Your task to perform on an android device: change notifications settings Image 0: 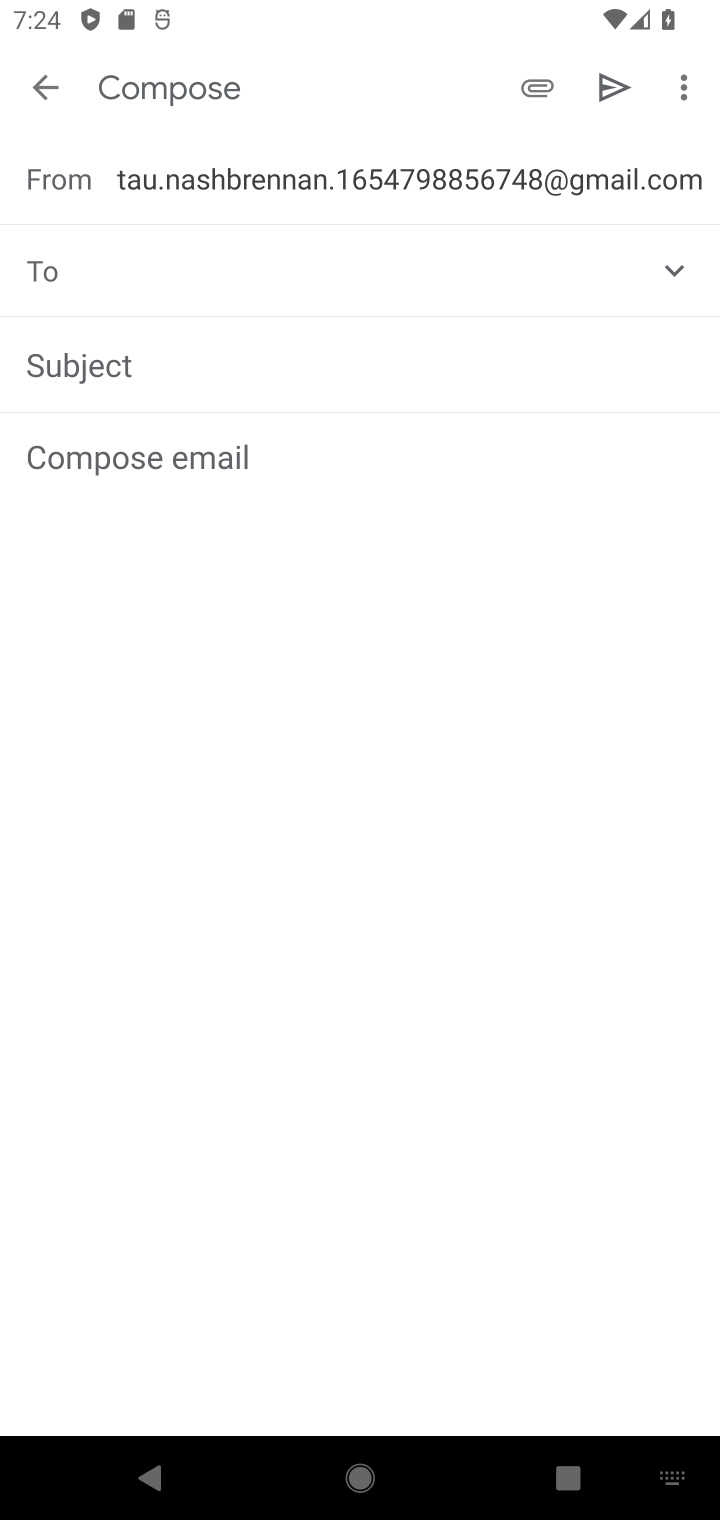
Step 0: press home button
Your task to perform on an android device: change notifications settings Image 1: 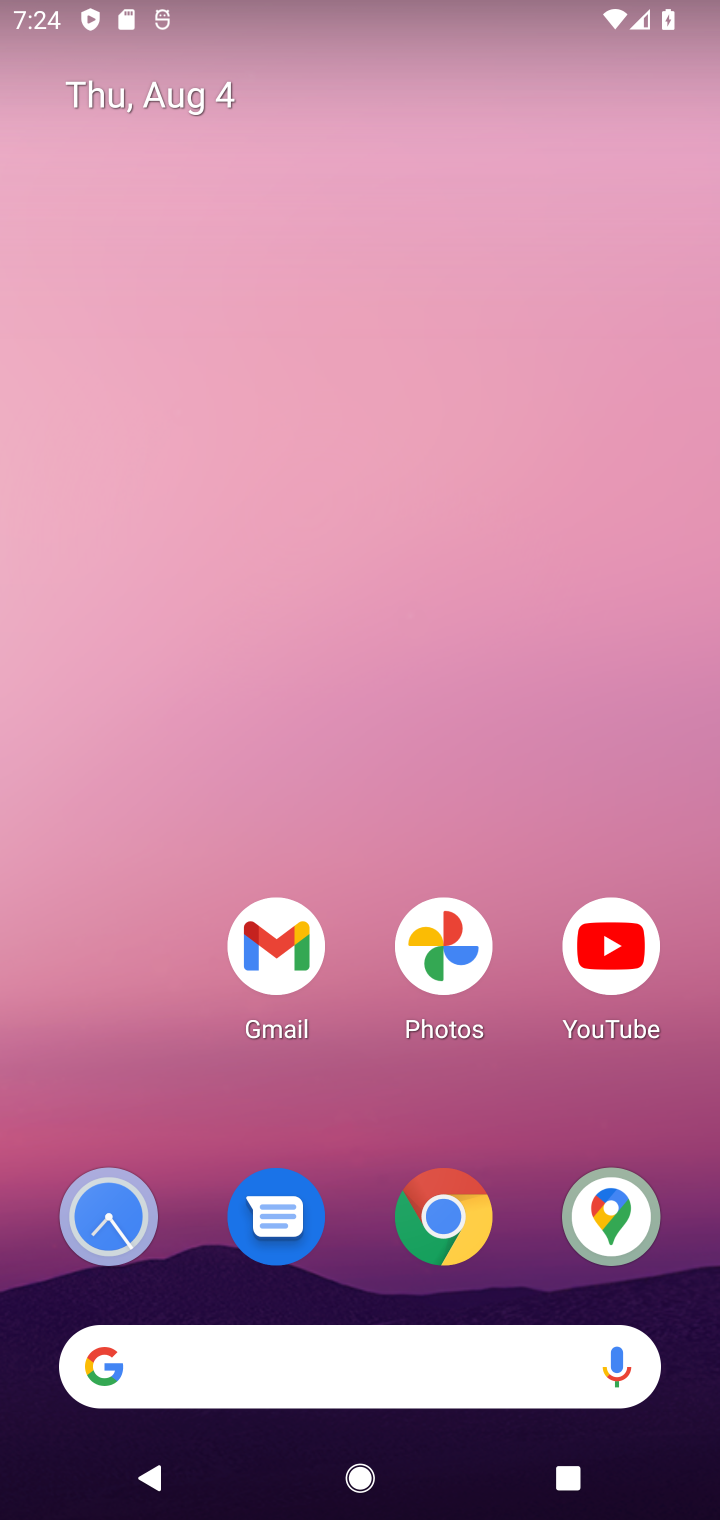
Step 1: drag from (346, 1129) to (346, 19)
Your task to perform on an android device: change notifications settings Image 2: 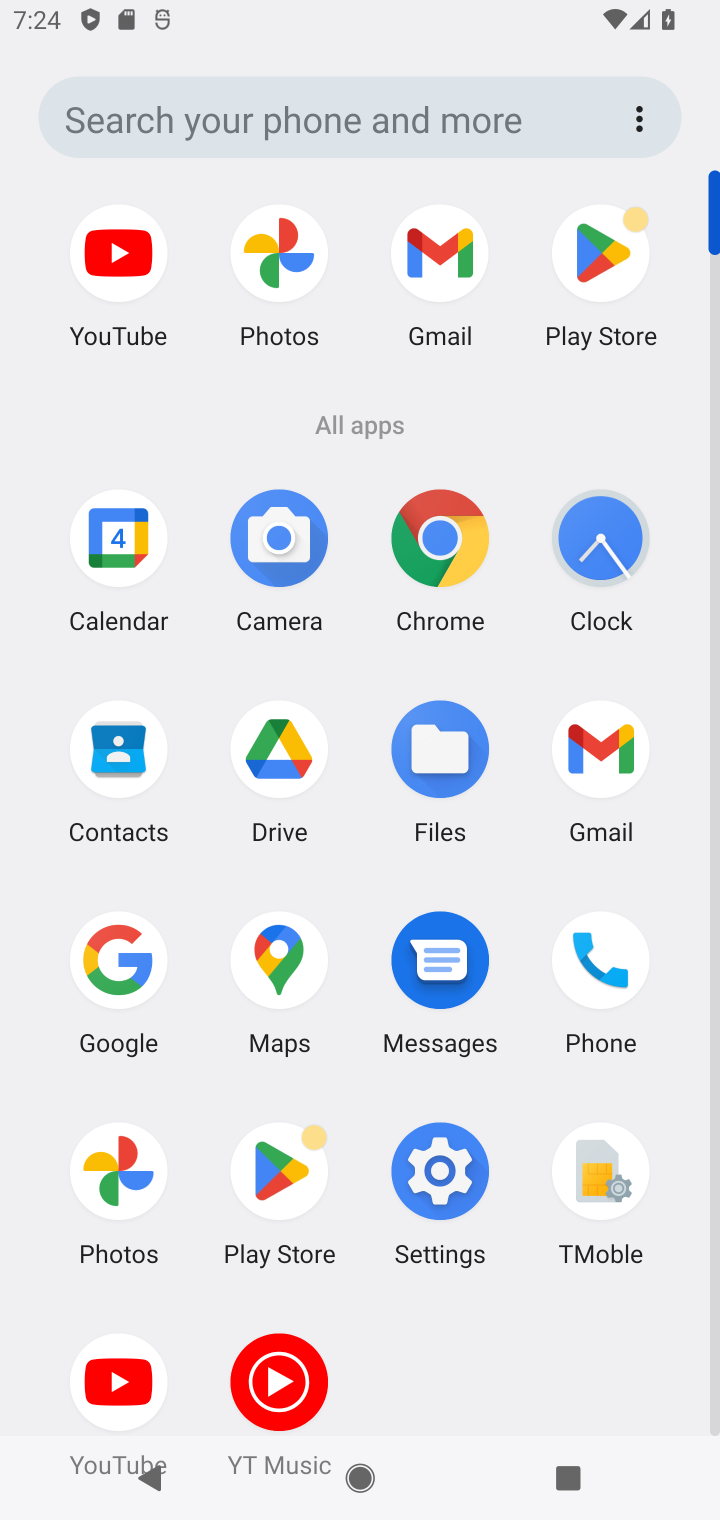
Step 2: click (439, 1148)
Your task to perform on an android device: change notifications settings Image 3: 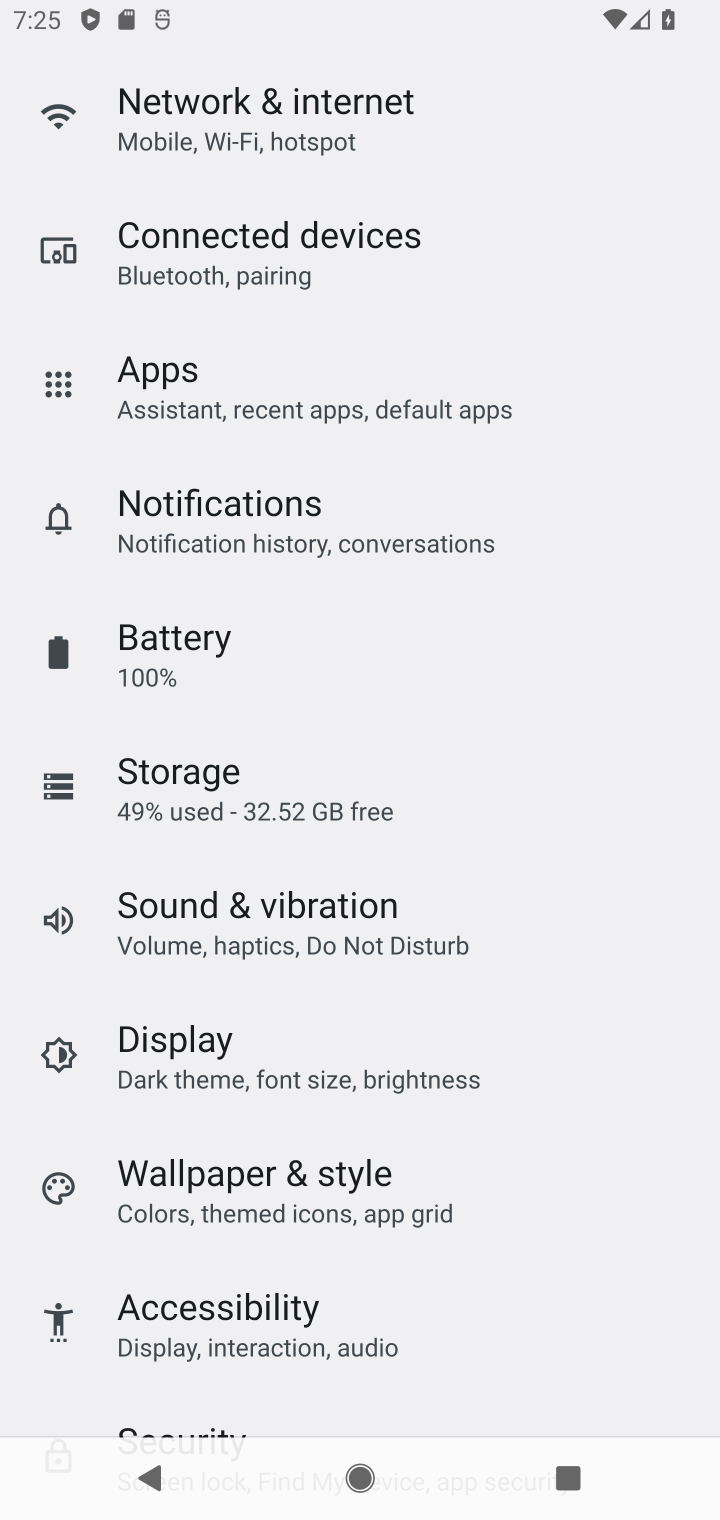
Step 3: click (306, 519)
Your task to perform on an android device: change notifications settings Image 4: 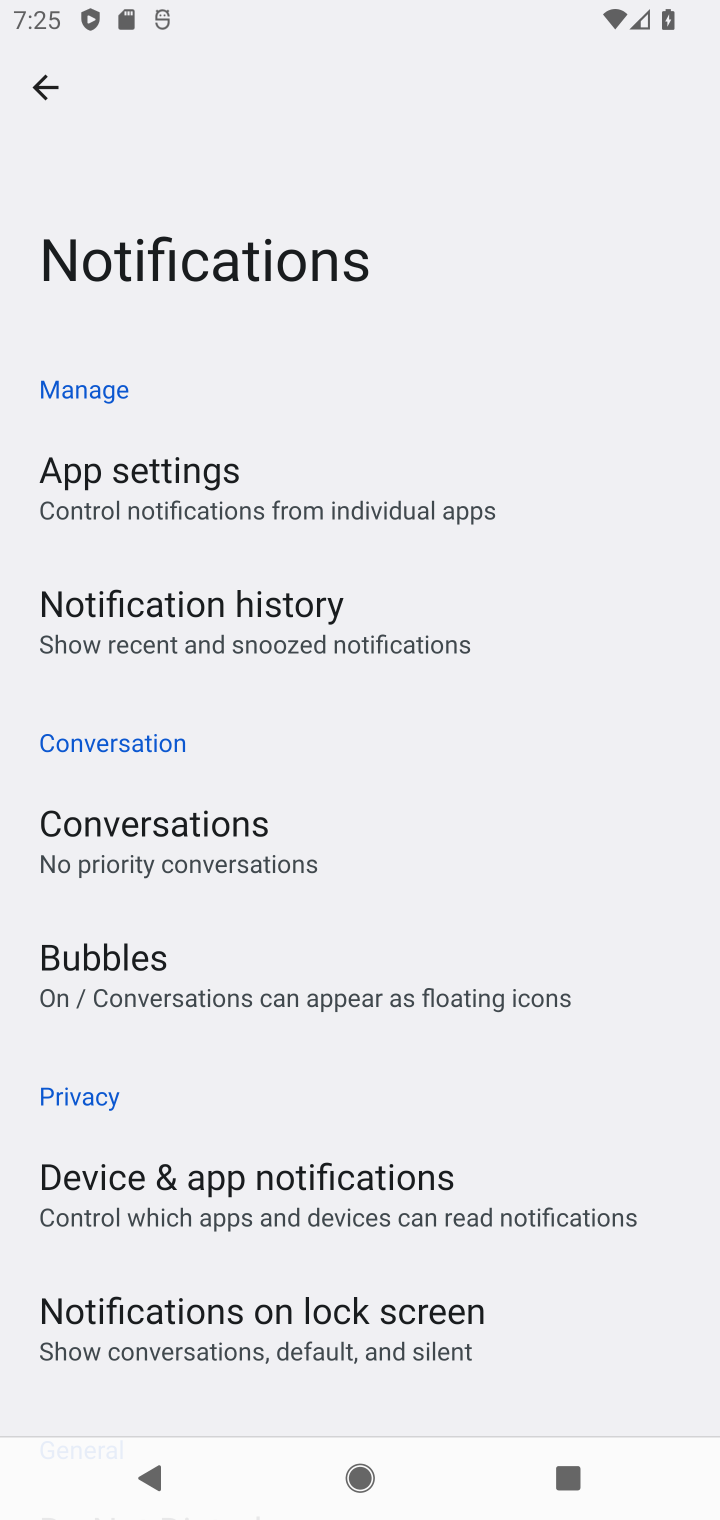
Step 4: click (437, 497)
Your task to perform on an android device: change notifications settings Image 5: 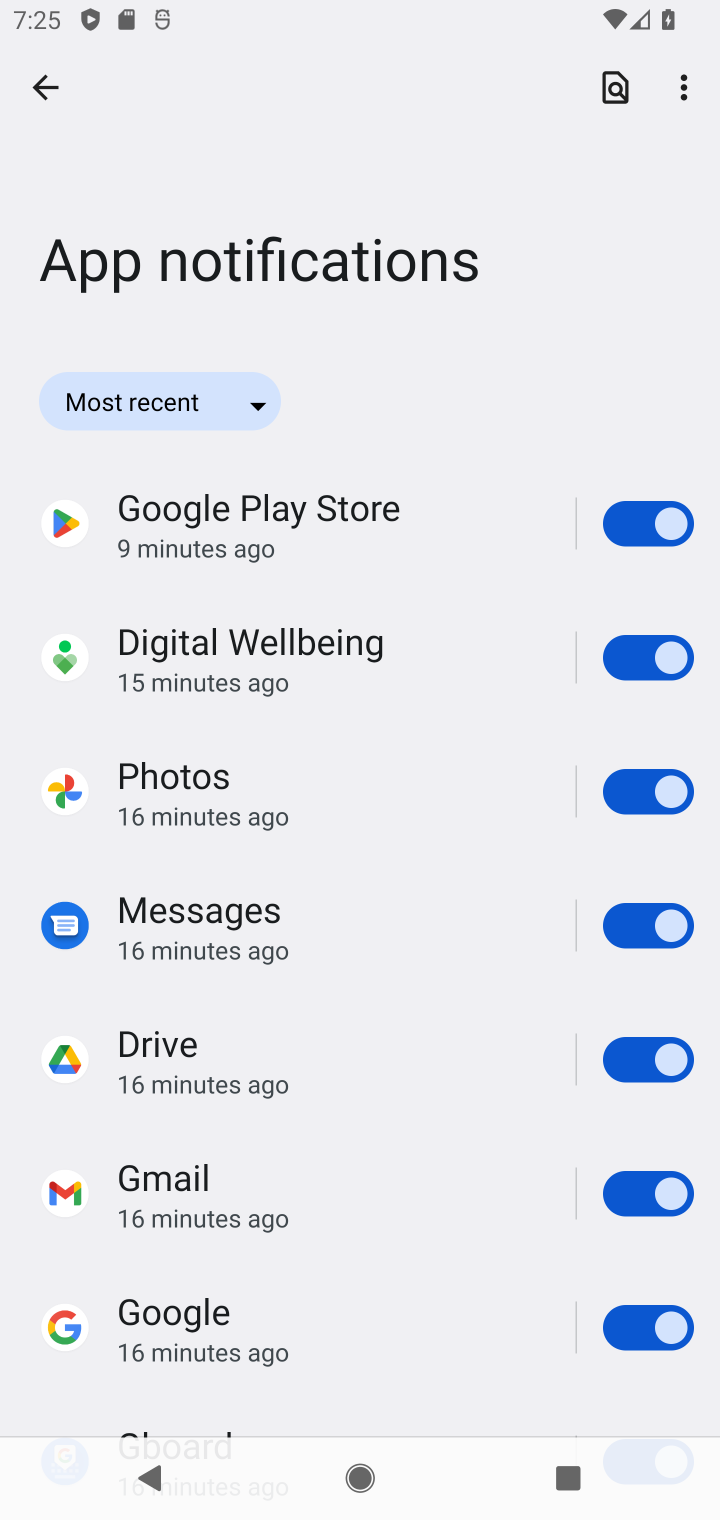
Step 5: click (659, 531)
Your task to perform on an android device: change notifications settings Image 6: 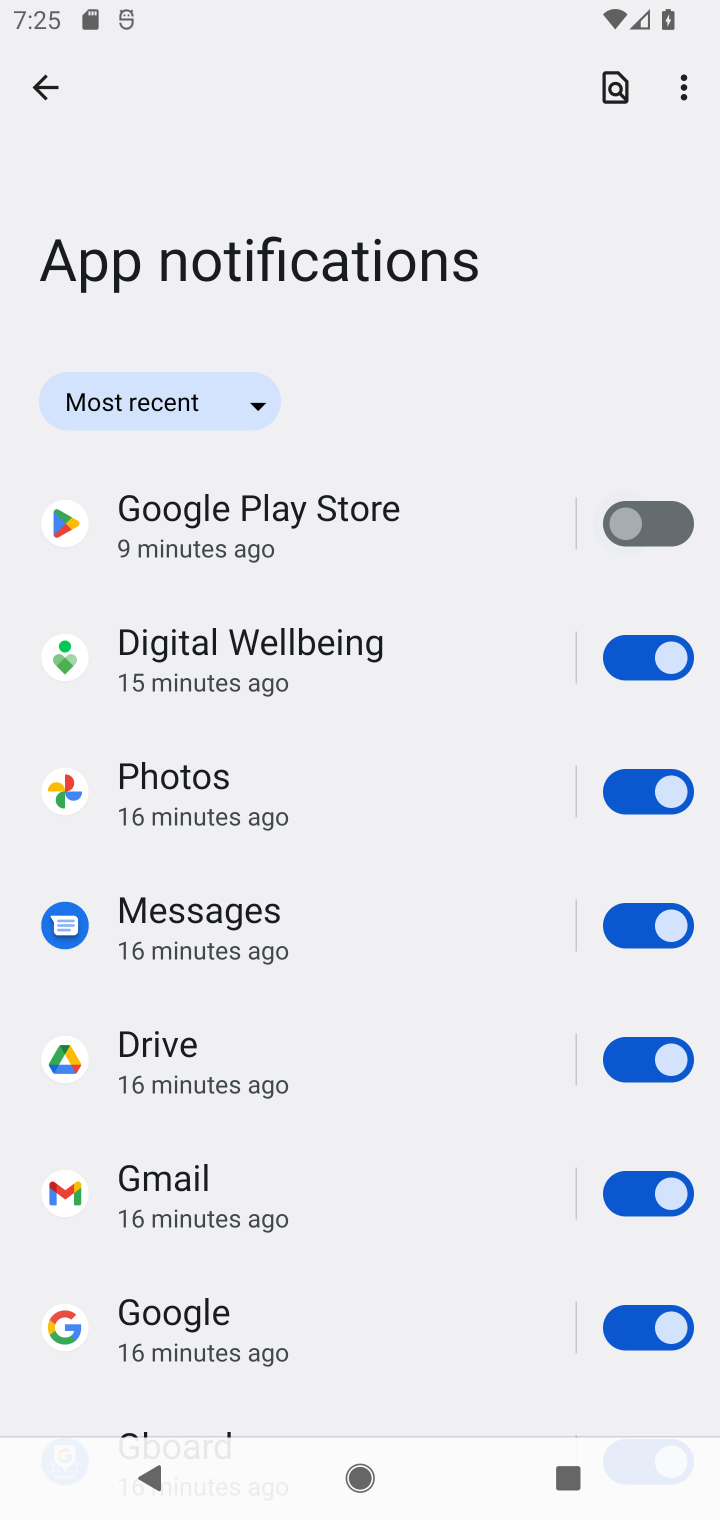
Step 6: click (650, 651)
Your task to perform on an android device: change notifications settings Image 7: 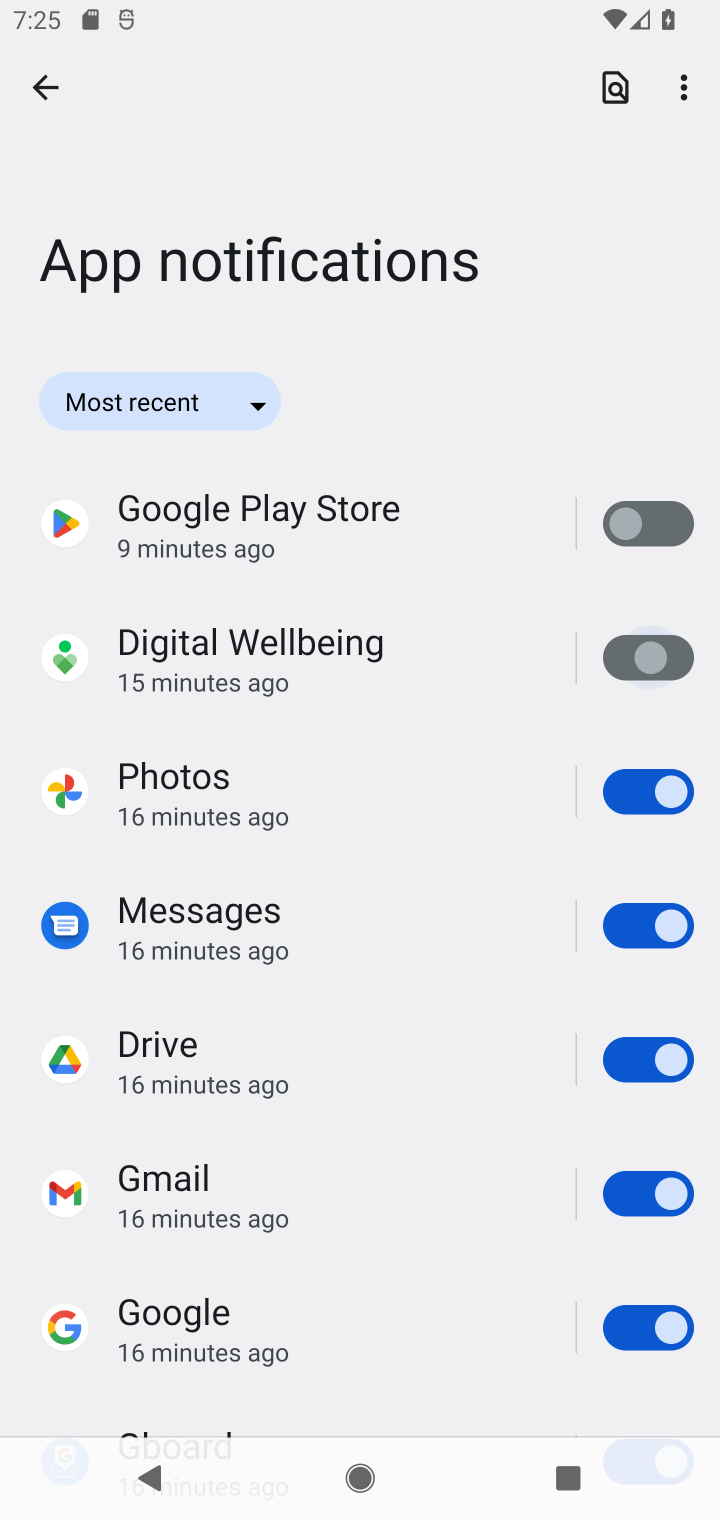
Step 7: click (650, 775)
Your task to perform on an android device: change notifications settings Image 8: 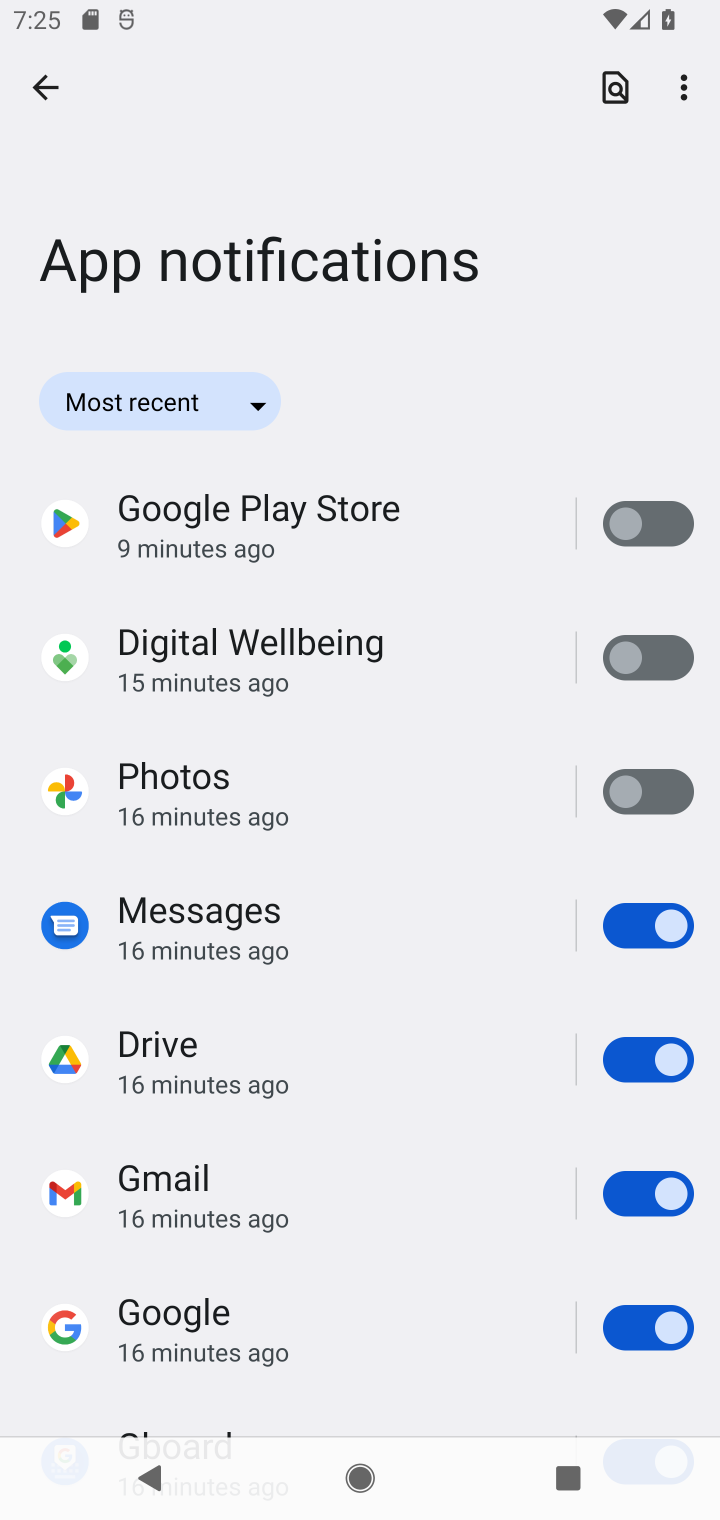
Step 8: click (661, 922)
Your task to perform on an android device: change notifications settings Image 9: 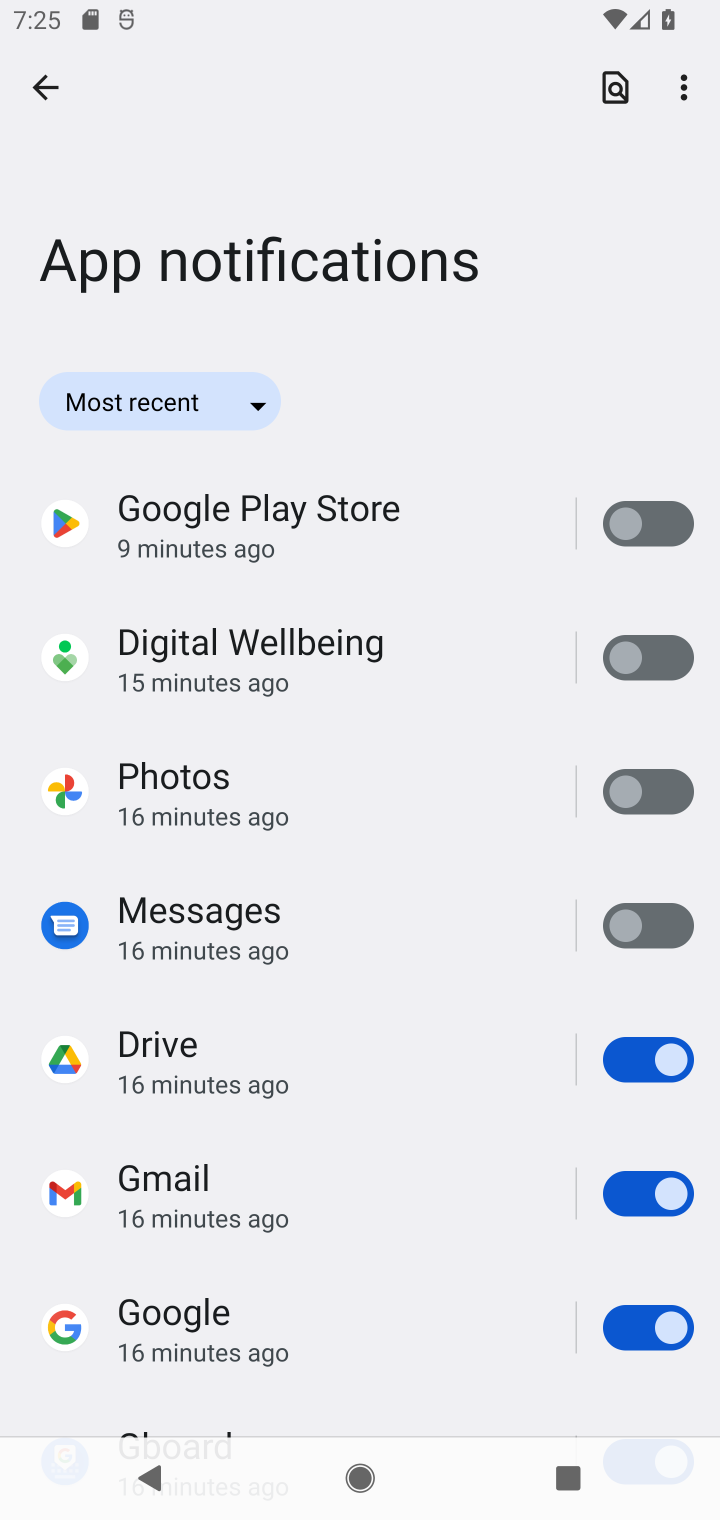
Step 9: click (666, 1064)
Your task to perform on an android device: change notifications settings Image 10: 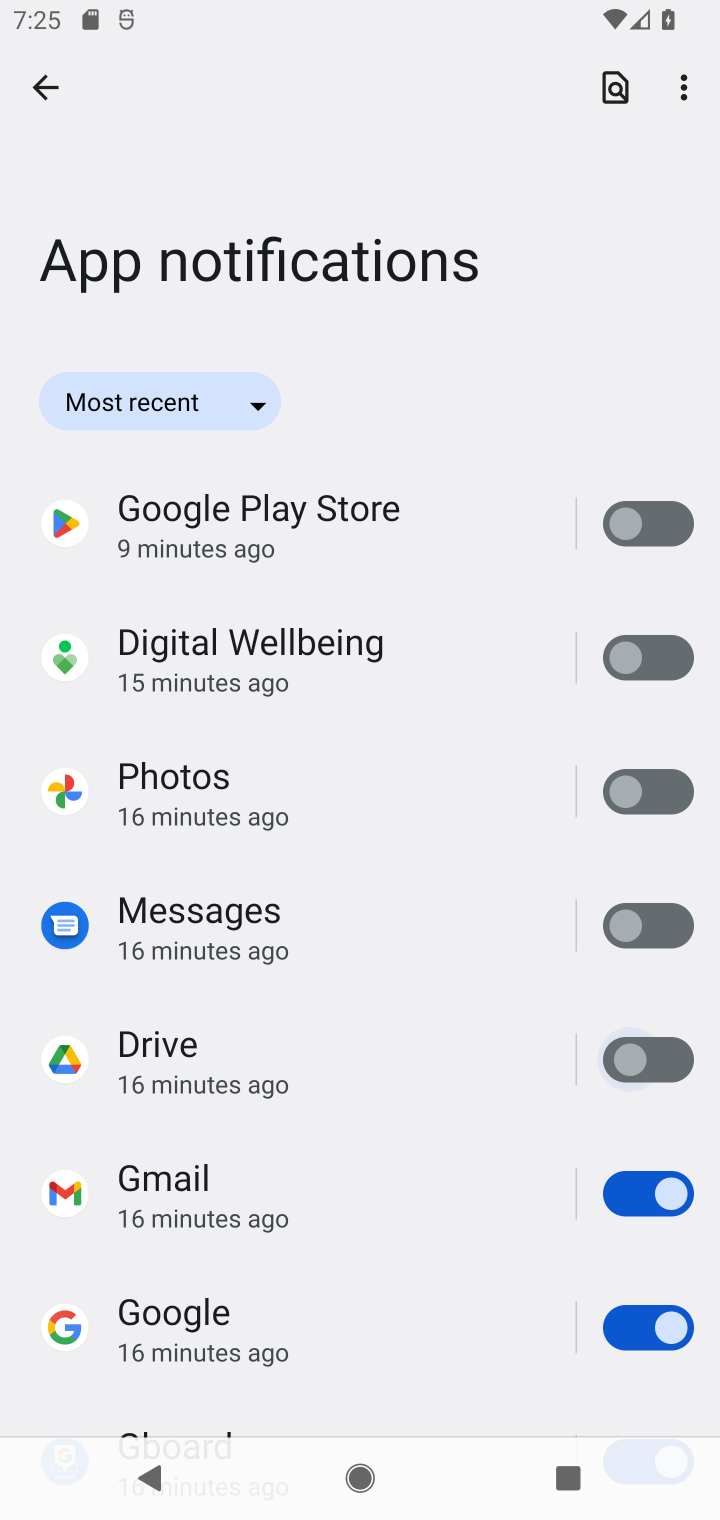
Step 10: click (667, 1201)
Your task to perform on an android device: change notifications settings Image 11: 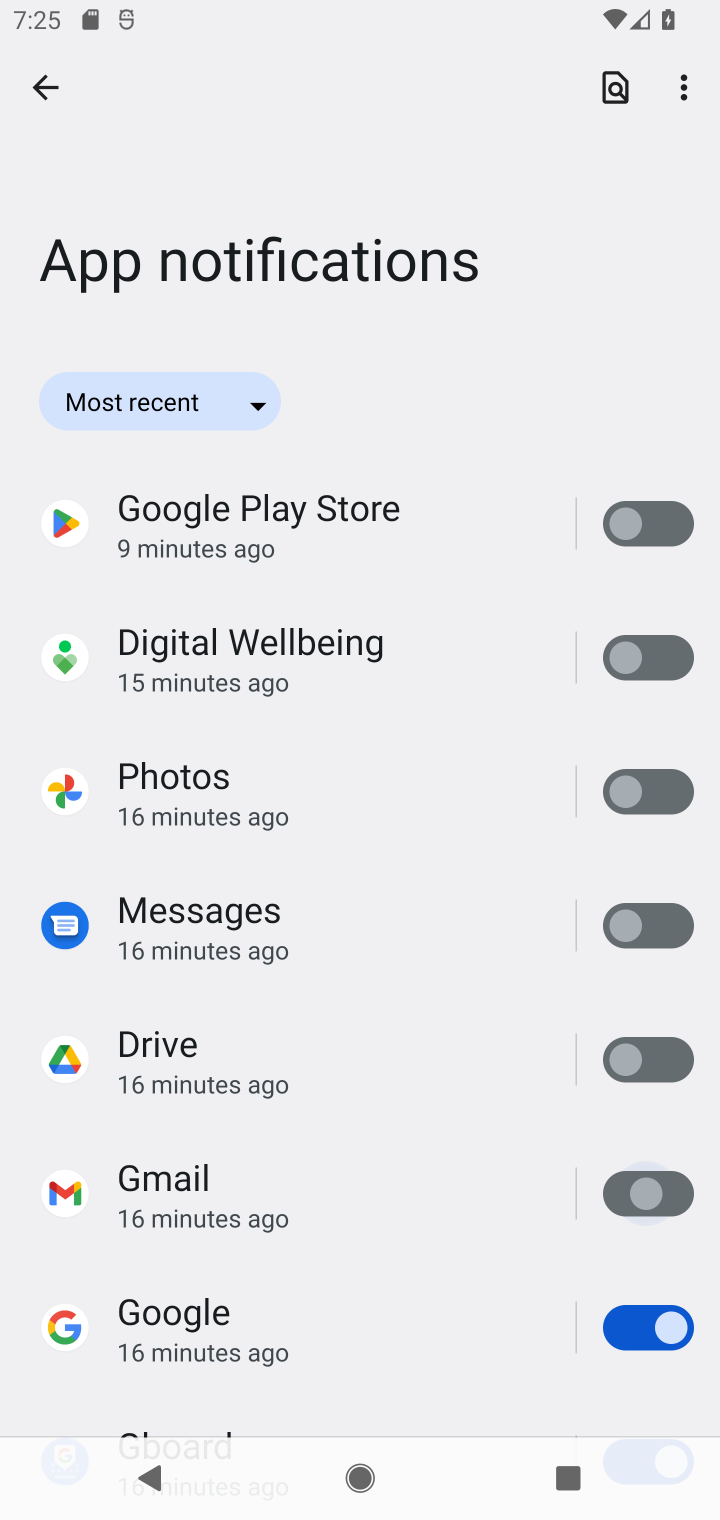
Step 11: click (653, 1314)
Your task to perform on an android device: change notifications settings Image 12: 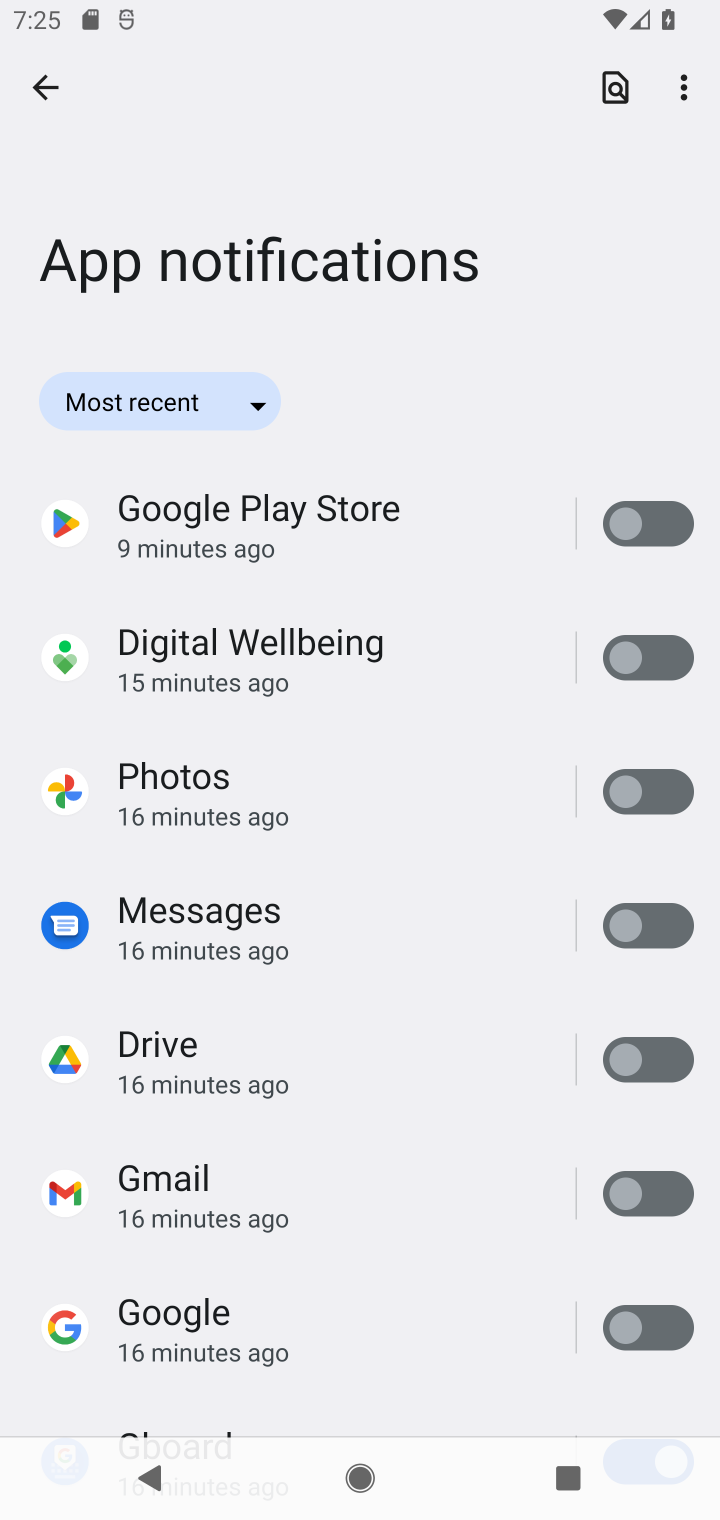
Step 12: drag from (499, 388) to (466, 43)
Your task to perform on an android device: change notifications settings Image 13: 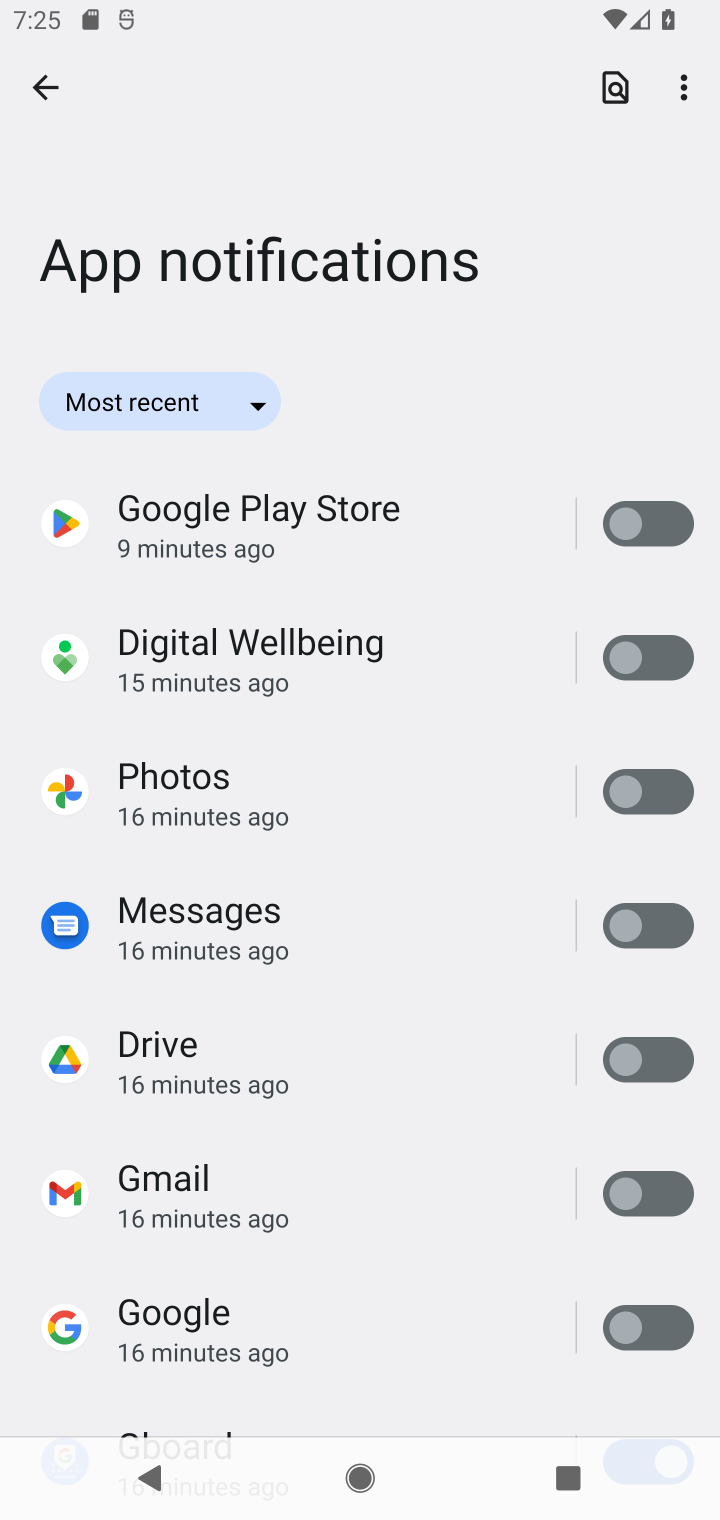
Step 13: drag from (479, 1360) to (376, 427)
Your task to perform on an android device: change notifications settings Image 14: 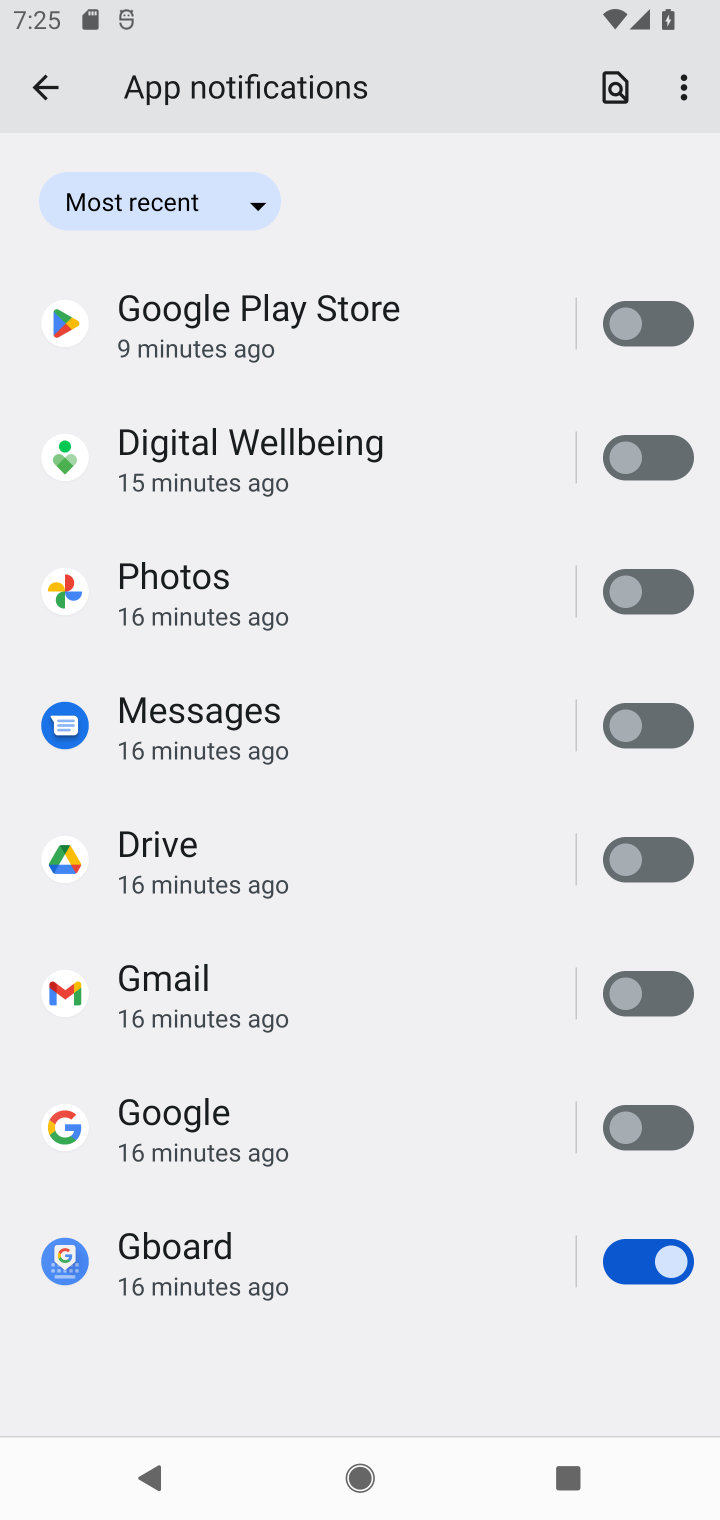
Step 14: click (671, 1259)
Your task to perform on an android device: change notifications settings Image 15: 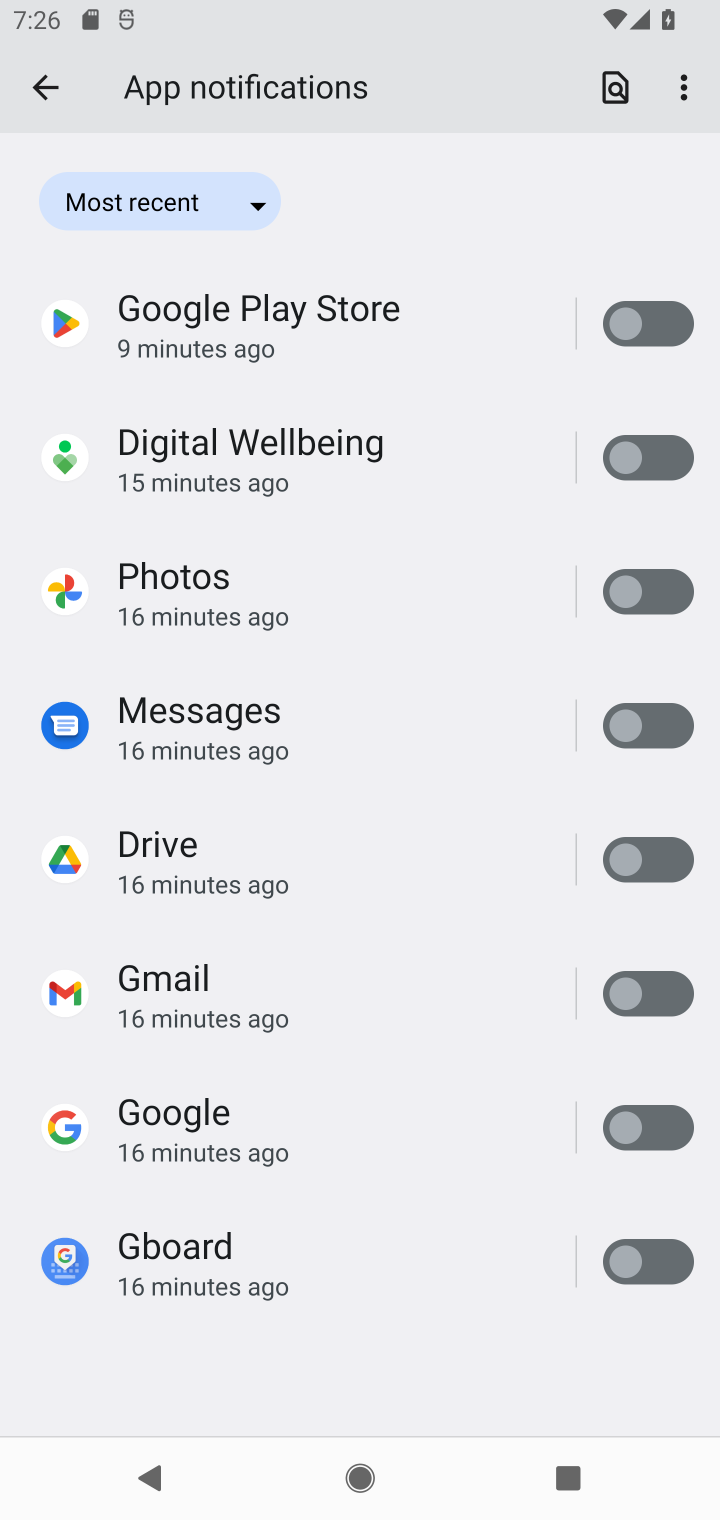
Step 15: click (45, 107)
Your task to perform on an android device: change notifications settings Image 16: 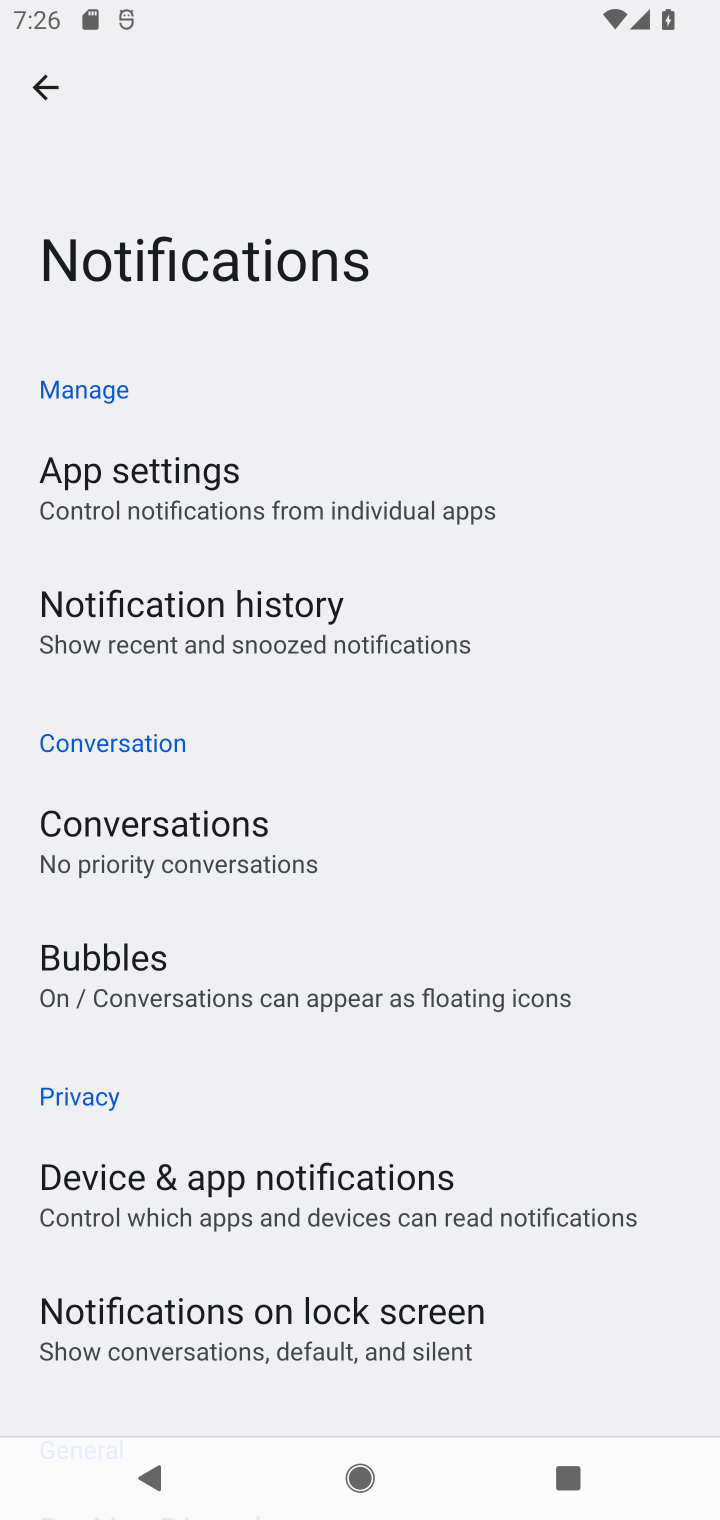
Step 16: click (305, 615)
Your task to perform on an android device: change notifications settings Image 17: 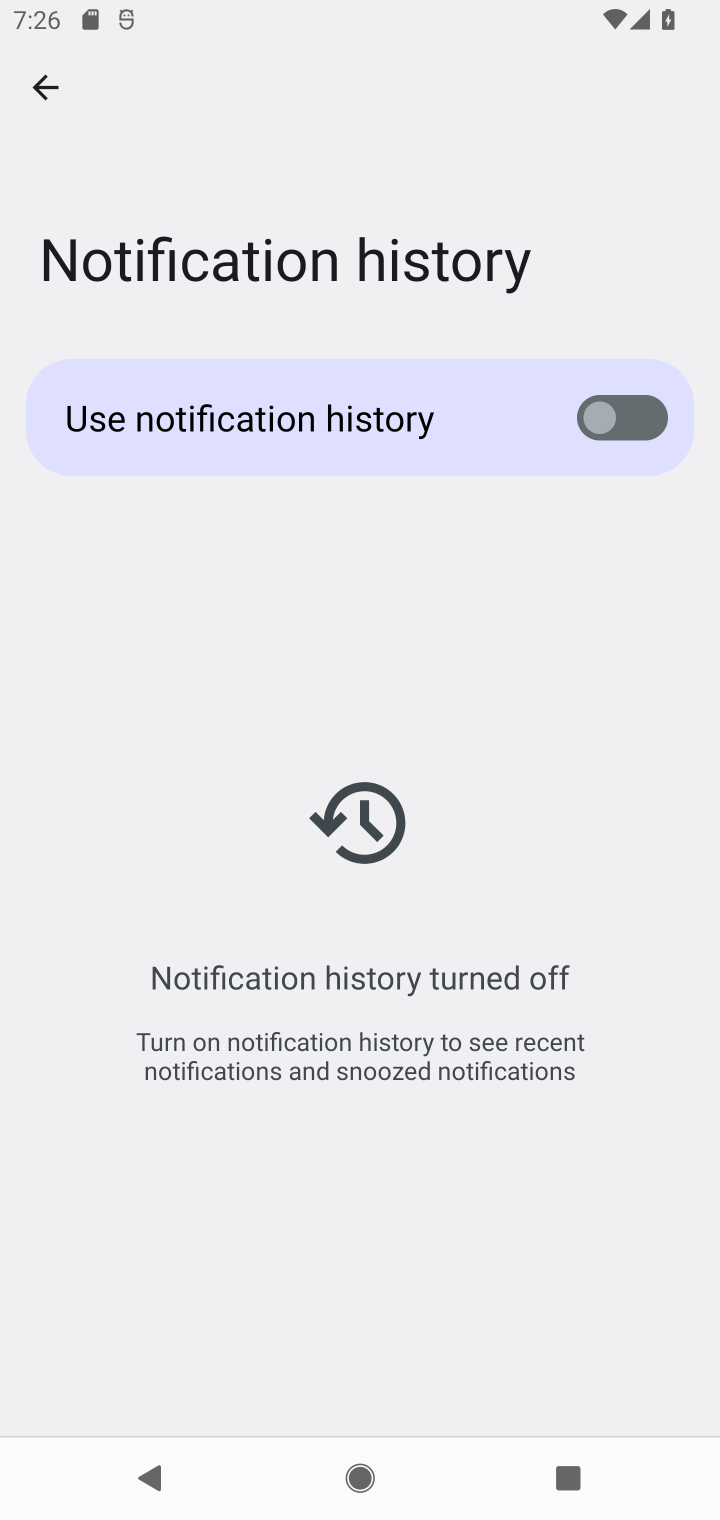
Step 17: click (612, 415)
Your task to perform on an android device: change notifications settings Image 18: 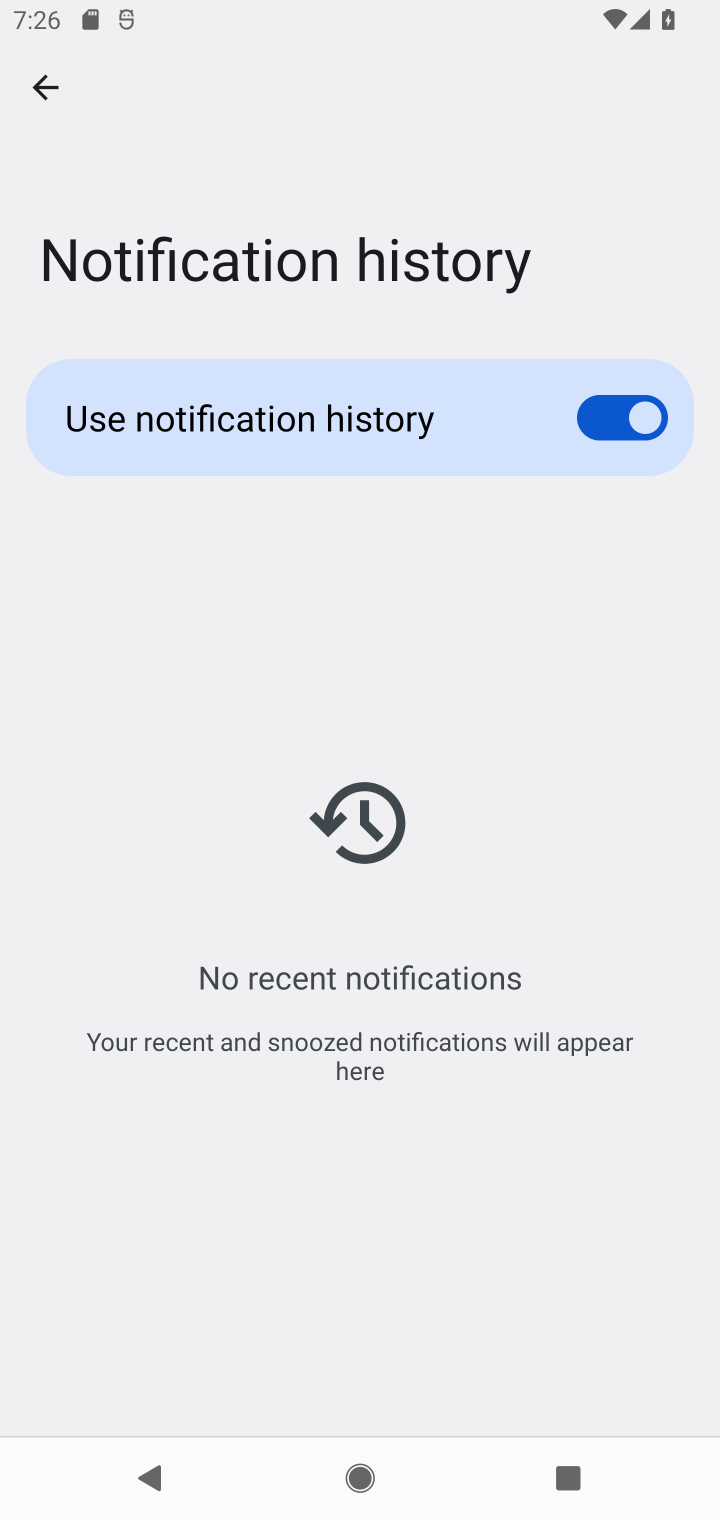
Step 18: click (53, 77)
Your task to perform on an android device: change notifications settings Image 19: 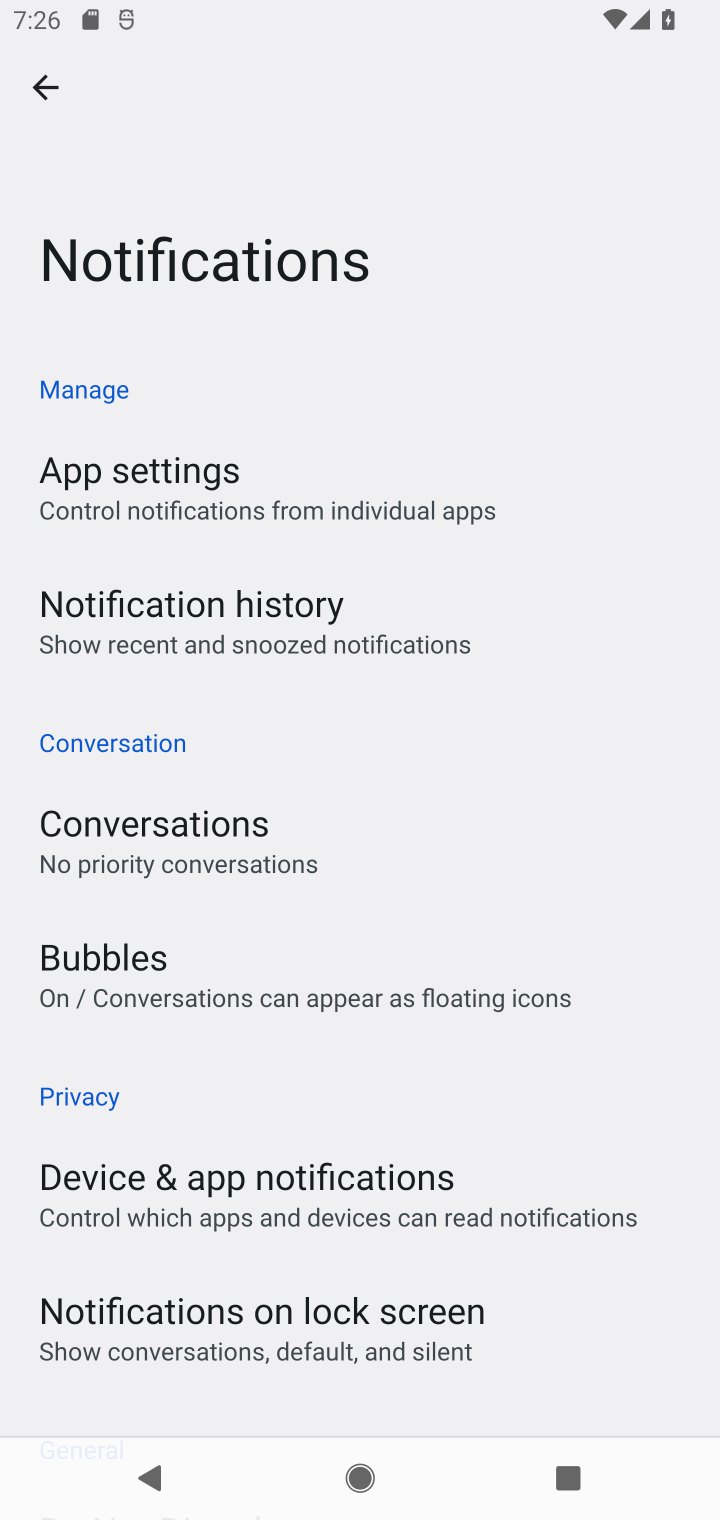
Step 19: click (323, 1328)
Your task to perform on an android device: change notifications settings Image 20: 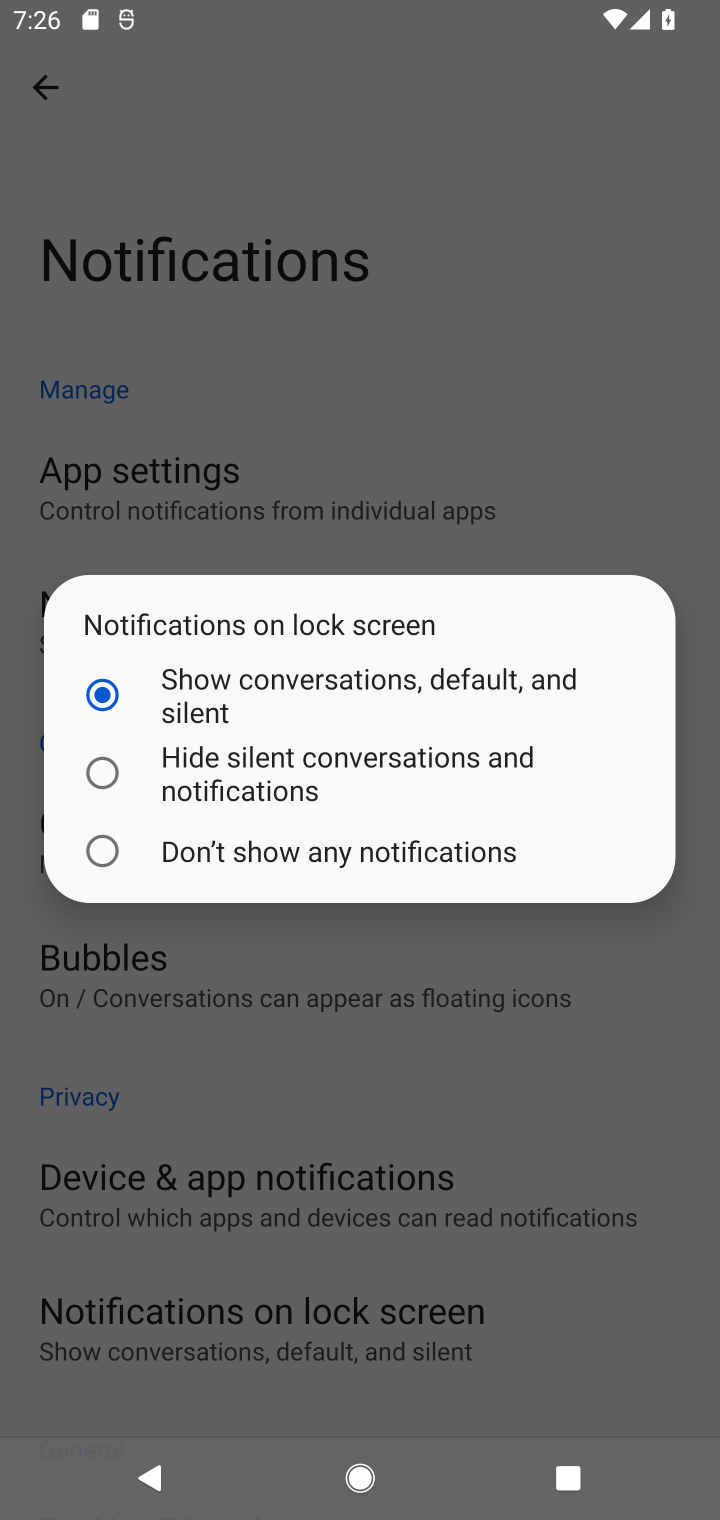
Step 20: click (335, 783)
Your task to perform on an android device: change notifications settings Image 21: 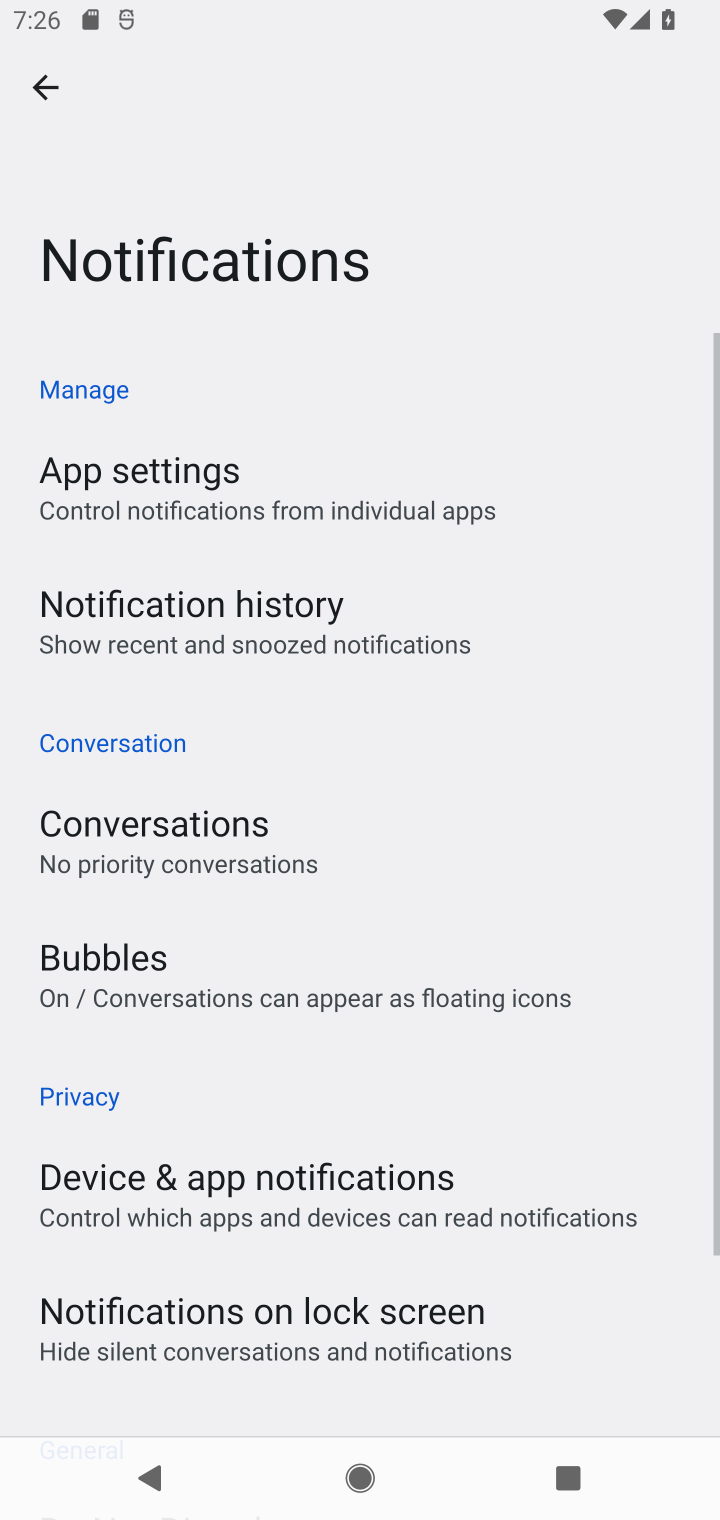
Step 21: drag from (337, 1123) to (337, 285)
Your task to perform on an android device: change notifications settings Image 22: 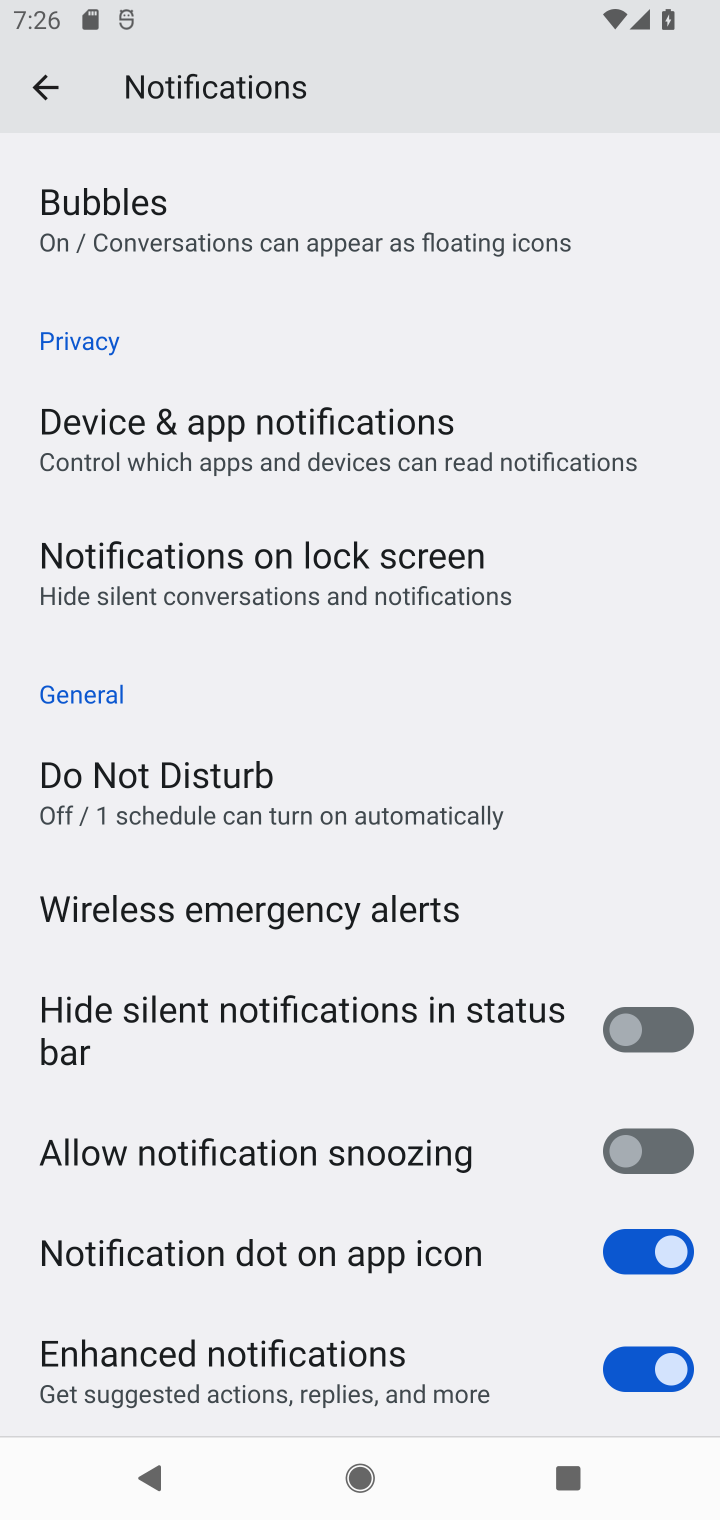
Step 22: click (611, 1009)
Your task to perform on an android device: change notifications settings Image 23: 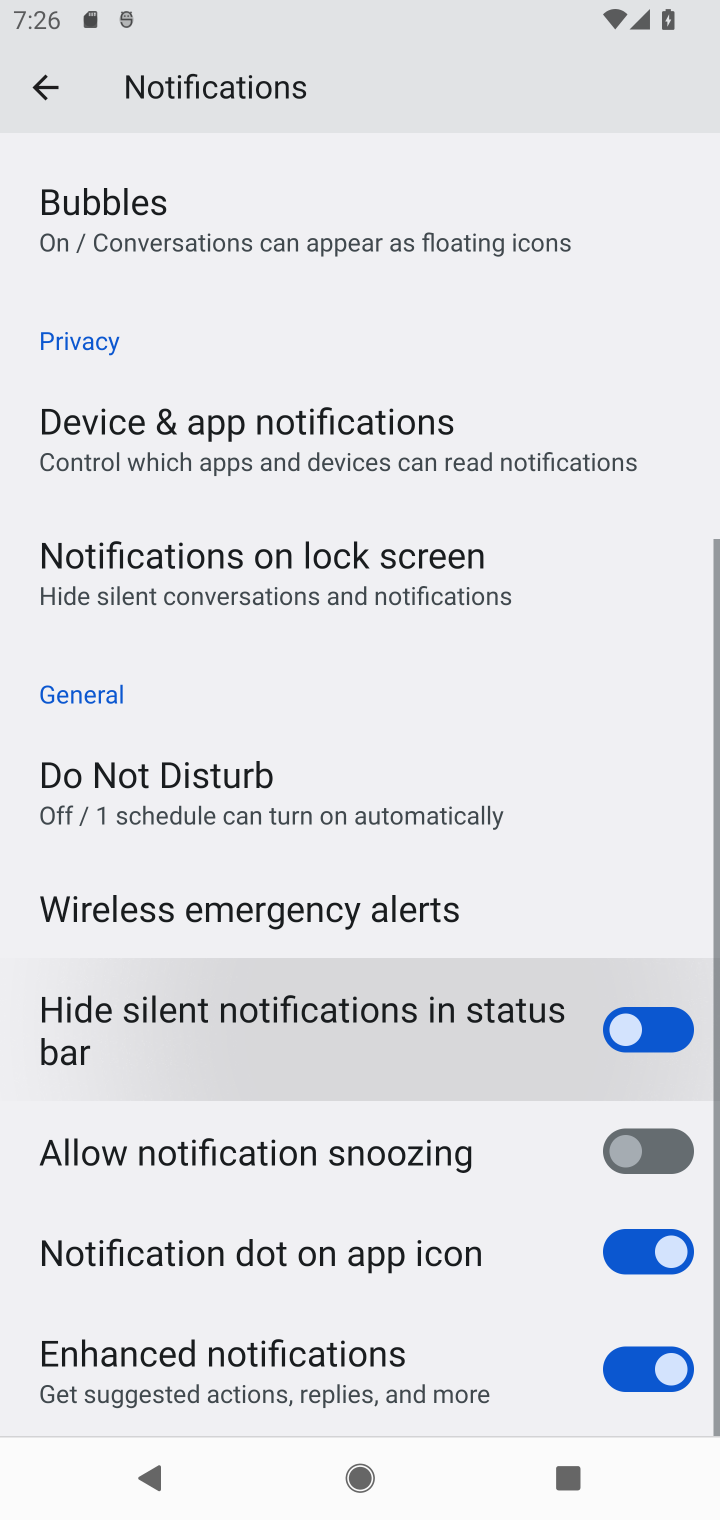
Step 23: click (667, 1168)
Your task to perform on an android device: change notifications settings Image 24: 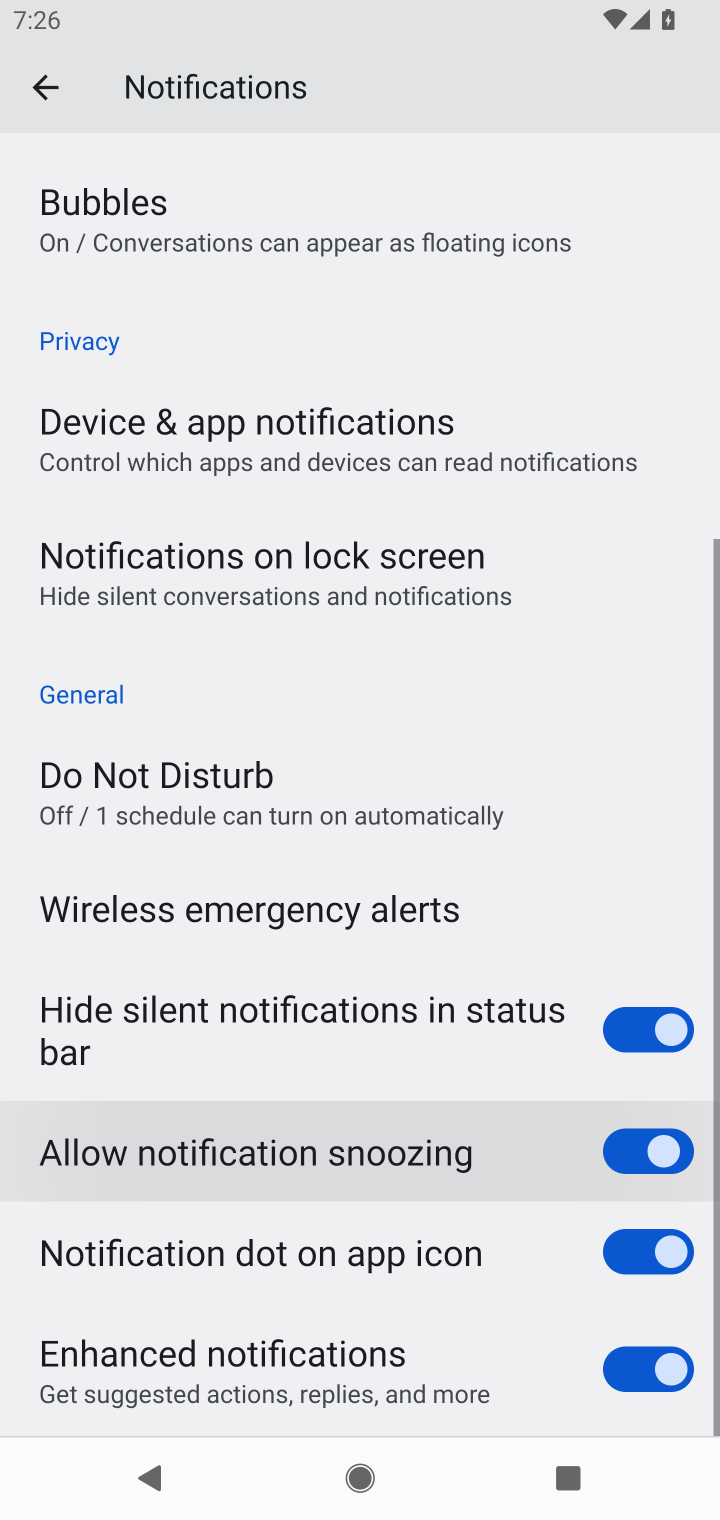
Step 24: click (665, 1257)
Your task to perform on an android device: change notifications settings Image 25: 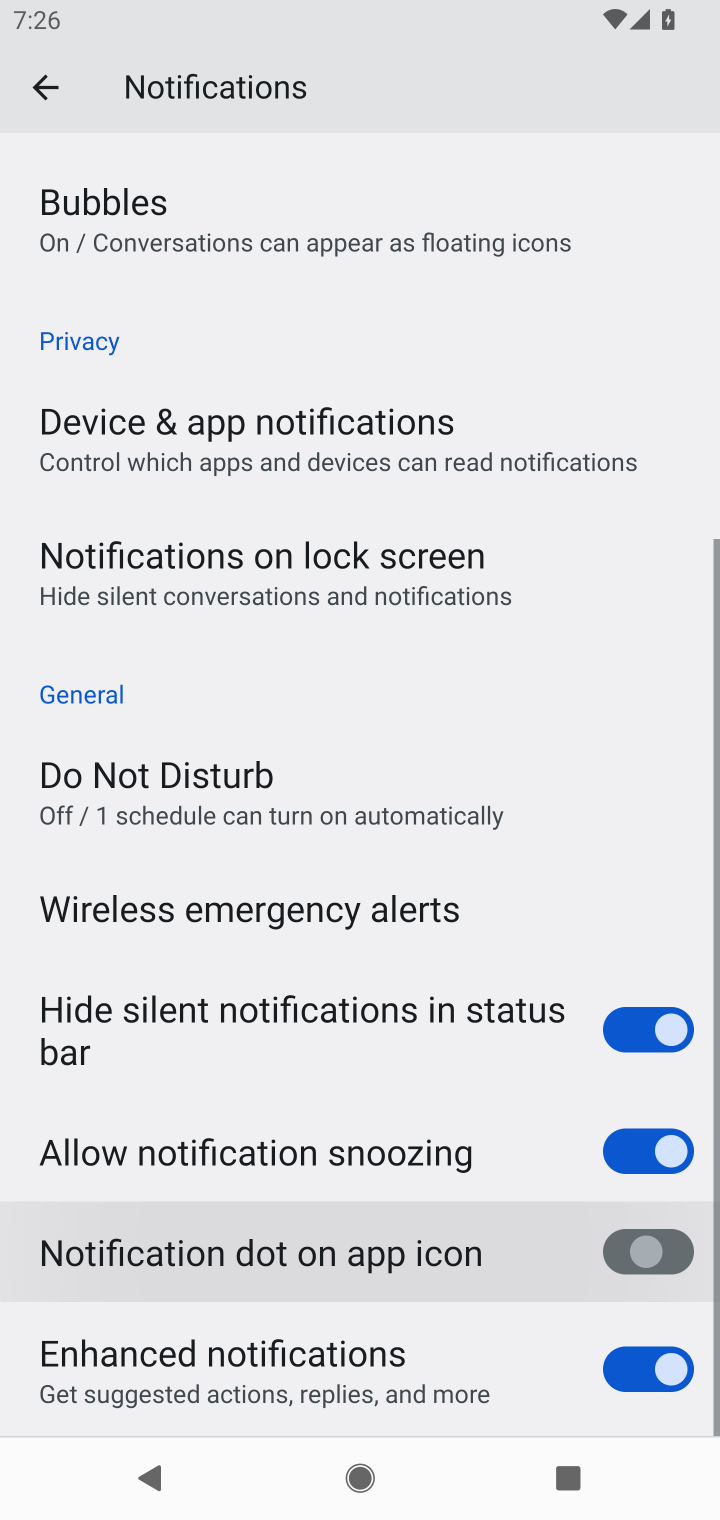
Step 25: click (665, 1379)
Your task to perform on an android device: change notifications settings Image 26: 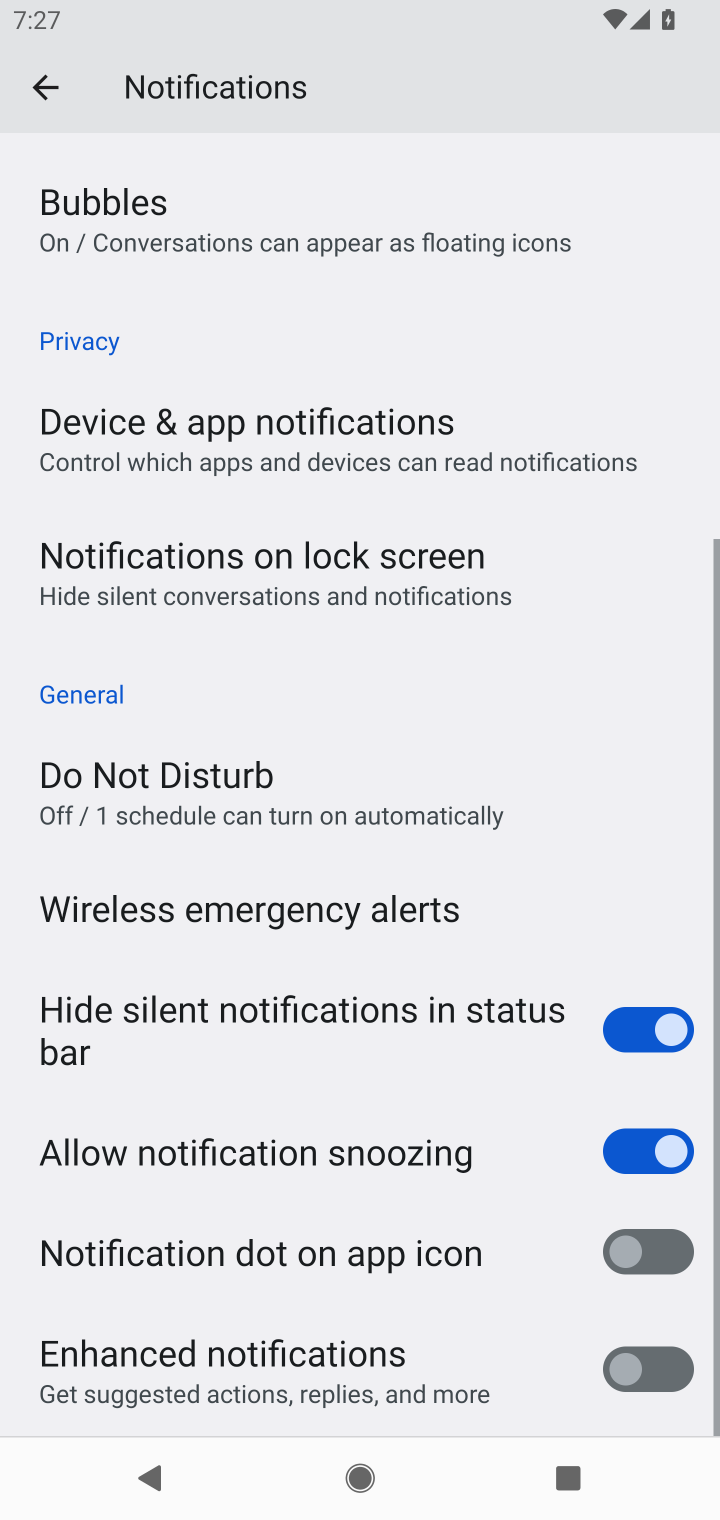
Step 26: task complete